Your task to perform on an android device: toggle notification dots Image 0: 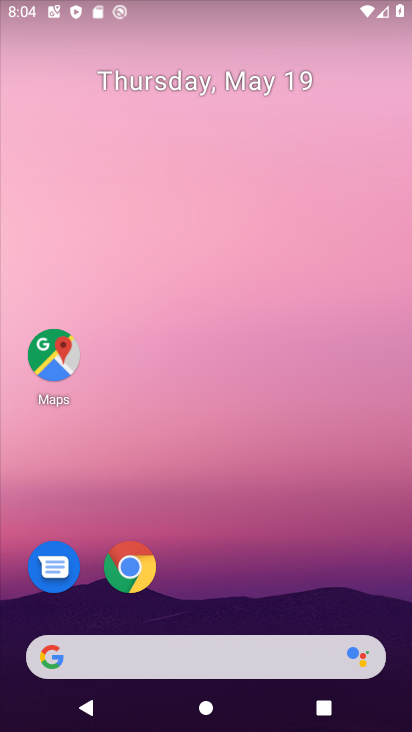
Step 0: press home button
Your task to perform on an android device: toggle notification dots Image 1: 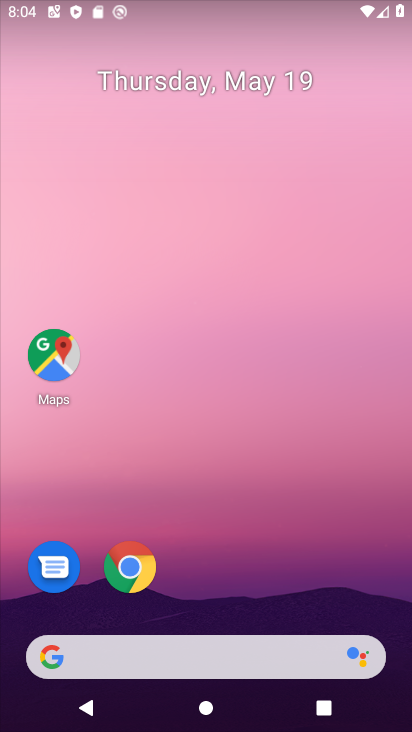
Step 1: drag from (231, 601) to (340, 3)
Your task to perform on an android device: toggle notification dots Image 2: 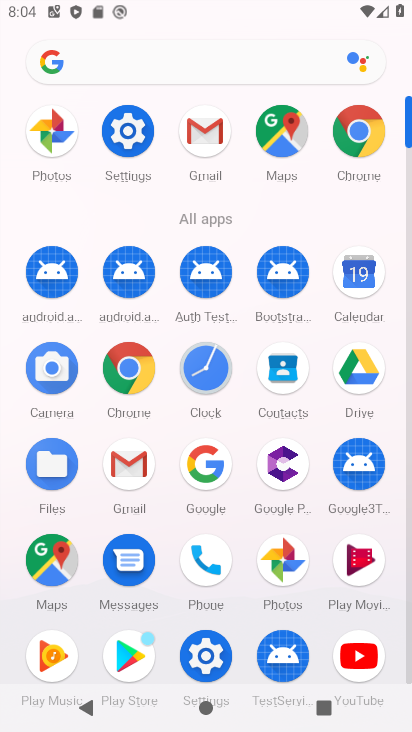
Step 2: click (135, 183)
Your task to perform on an android device: toggle notification dots Image 3: 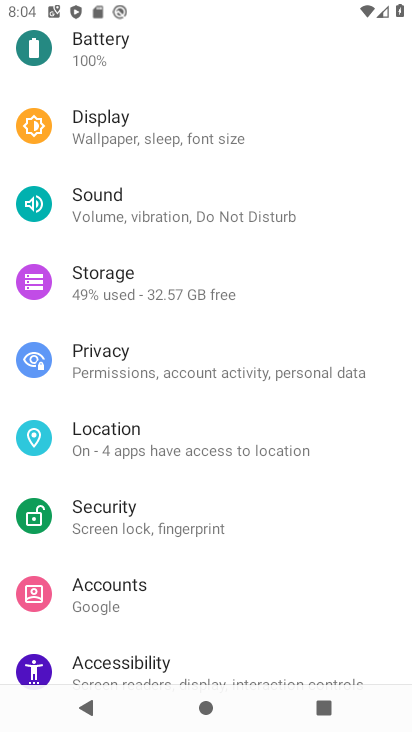
Step 3: drag from (161, 74) to (117, 731)
Your task to perform on an android device: toggle notification dots Image 4: 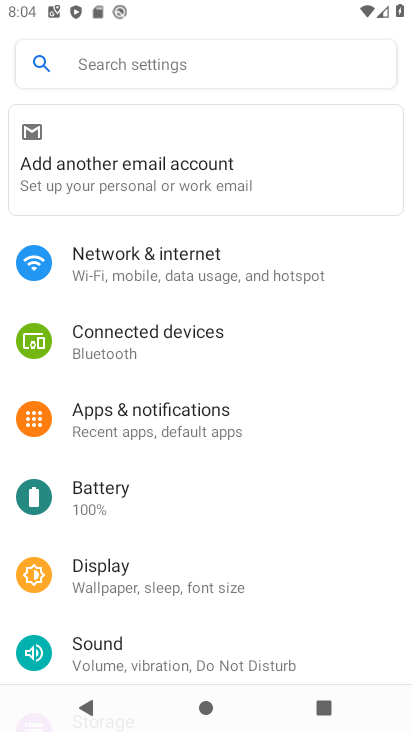
Step 4: click (181, 402)
Your task to perform on an android device: toggle notification dots Image 5: 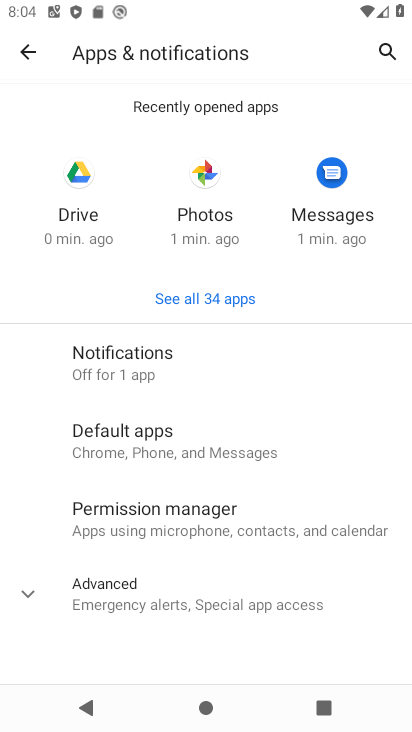
Step 5: click (157, 373)
Your task to perform on an android device: toggle notification dots Image 6: 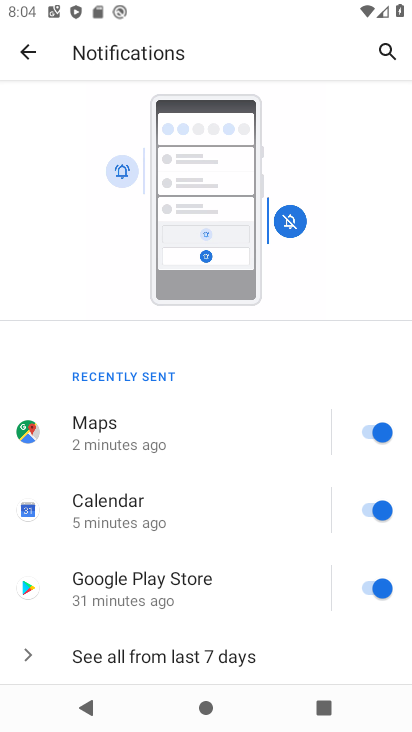
Step 6: drag from (145, 608) to (189, 69)
Your task to perform on an android device: toggle notification dots Image 7: 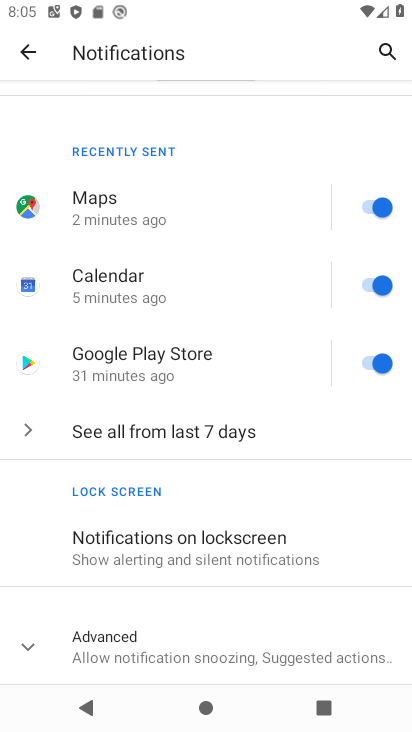
Step 7: click (152, 652)
Your task to perform on an android device: toggle notification dots Image 8: 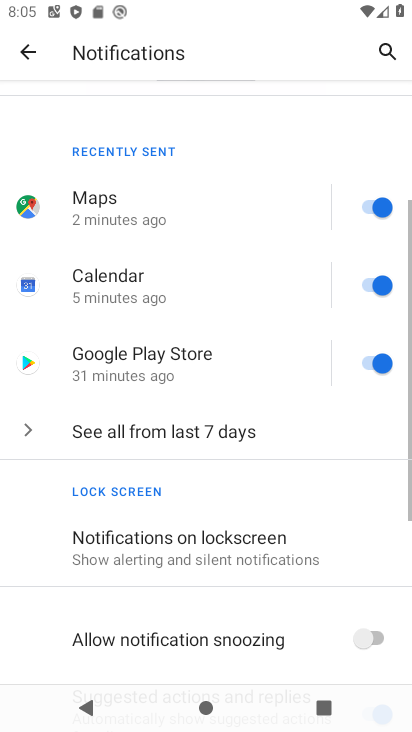
Step 8: drag from (152, 652) to (181, 238)
Your task to perform on an android device: toggle notification dots Image 9: 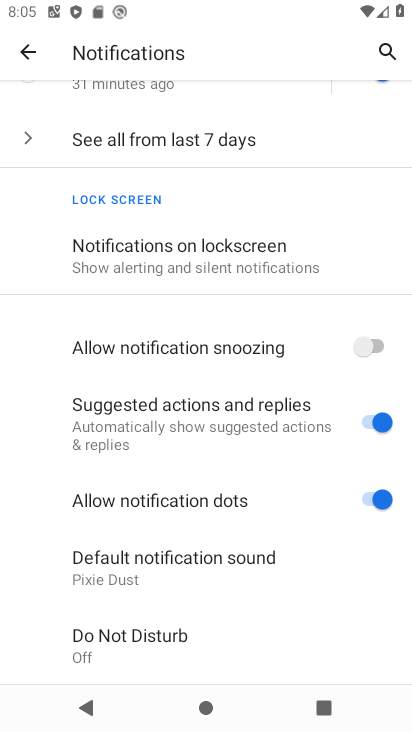
Step 9: click (378, 498)
Your task to perform on an android device: toggle notification dots Image 10: 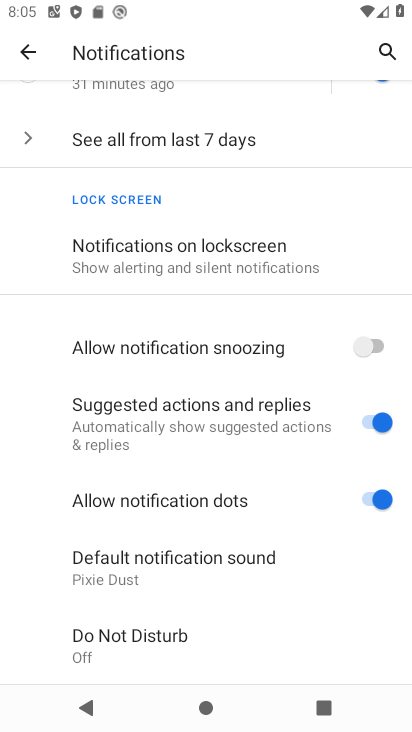
Step 10: click (378, 498)
Your task to perform on an android device: toggle notification dots Image 11: 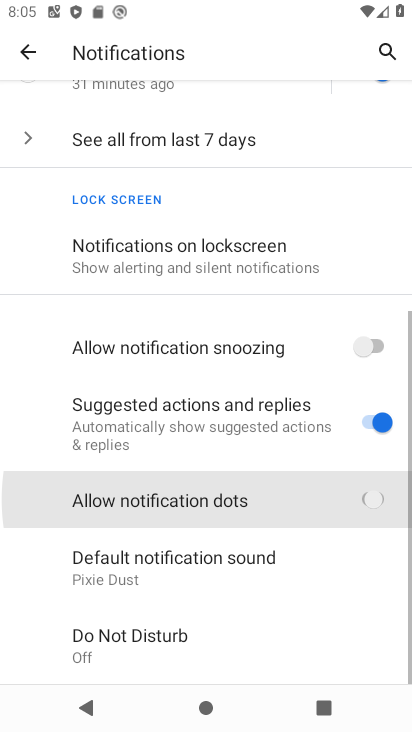
Step 11: click (378, 498)
Your task to perform on an android device: toggle notification dots Image 12: 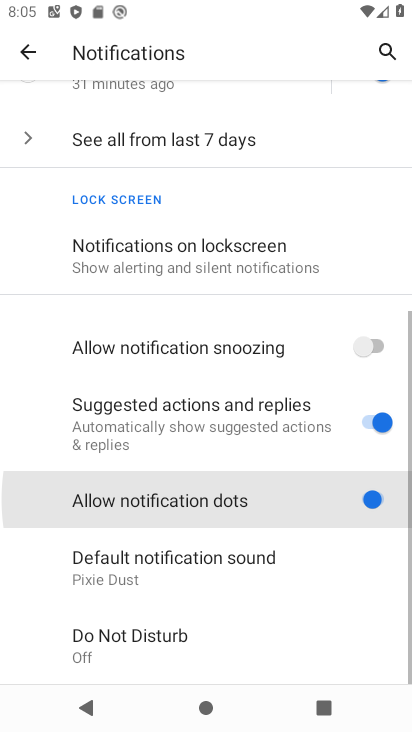
Step 12: click (378, 498)
Your task to perform on an android device: toggle notification dots Image 13: 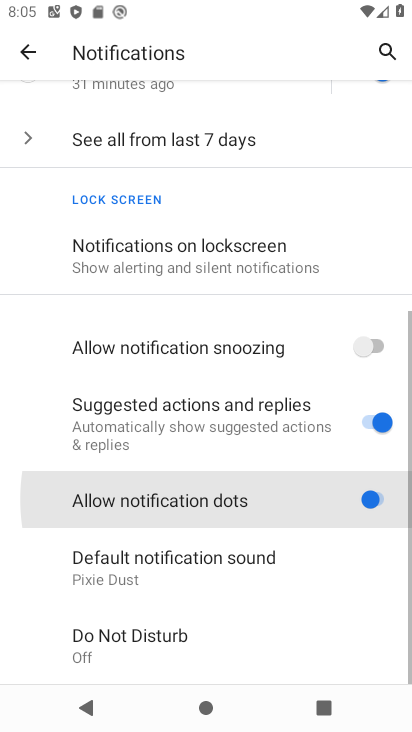
Step 13: click (378, 498)
Your task to perform on an android device: toggle notification dots Image 14: 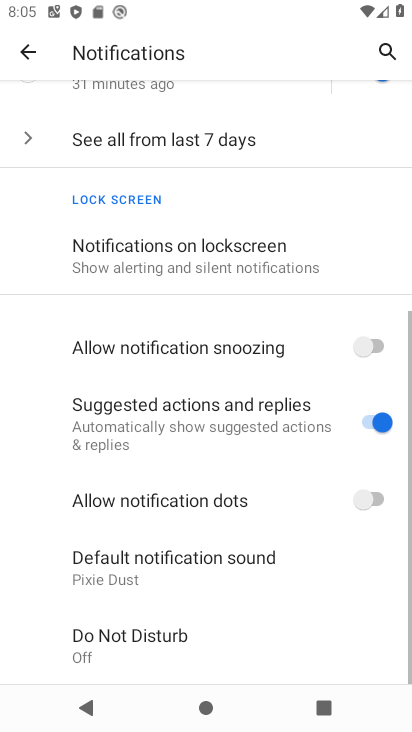
Step 14: click (378, 498)
Your task to perform on an android device: toggle notification dots Image 15: 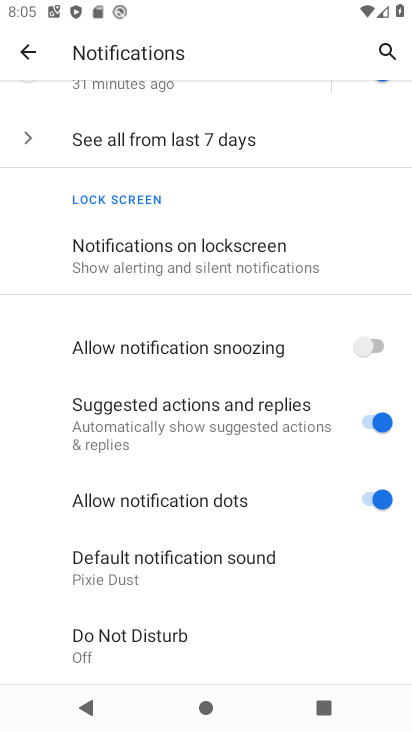
Step 15: task complete